Your task to perform on an android device: open sync settings in chrome Image 0: 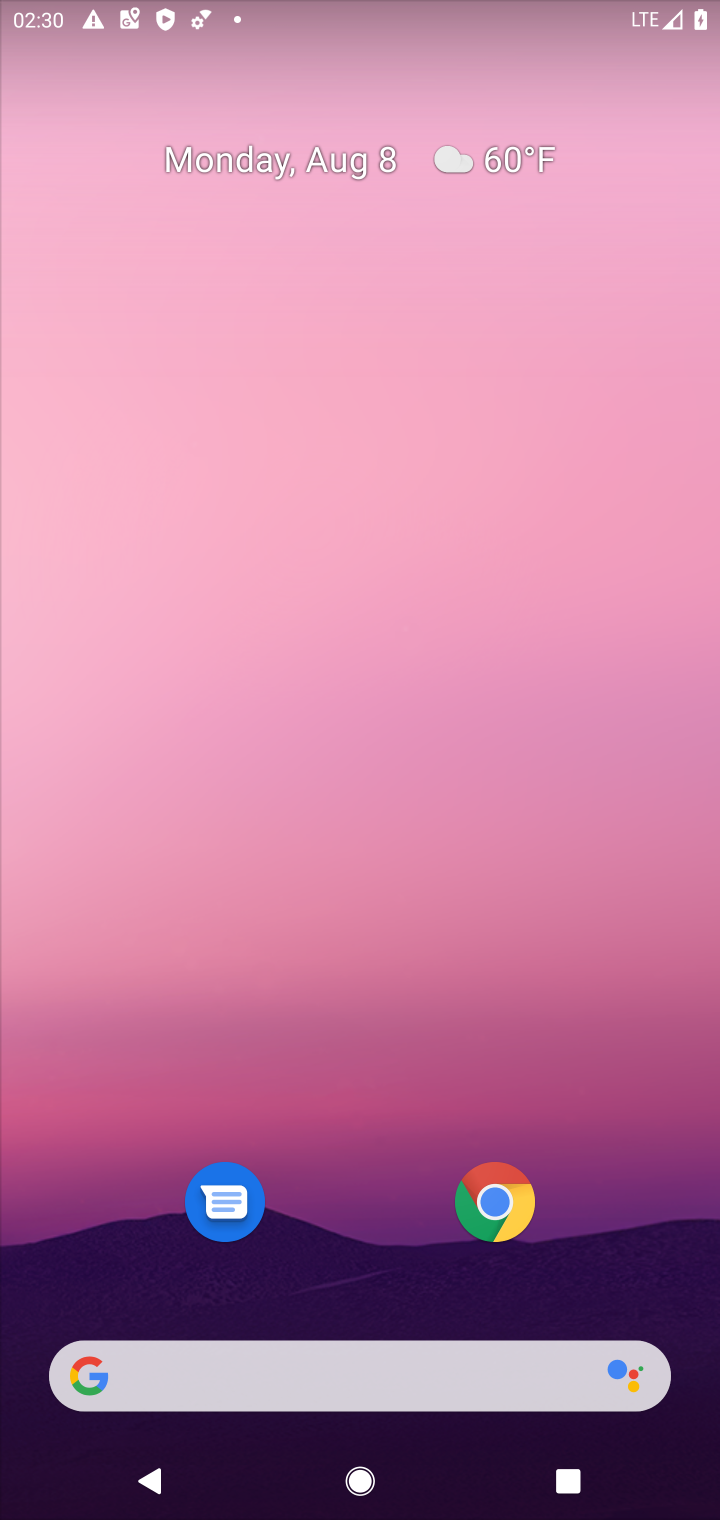
Step 0: click (488, 1200)
Your task to perform on an android device: open sync settings in chrome Image 1: 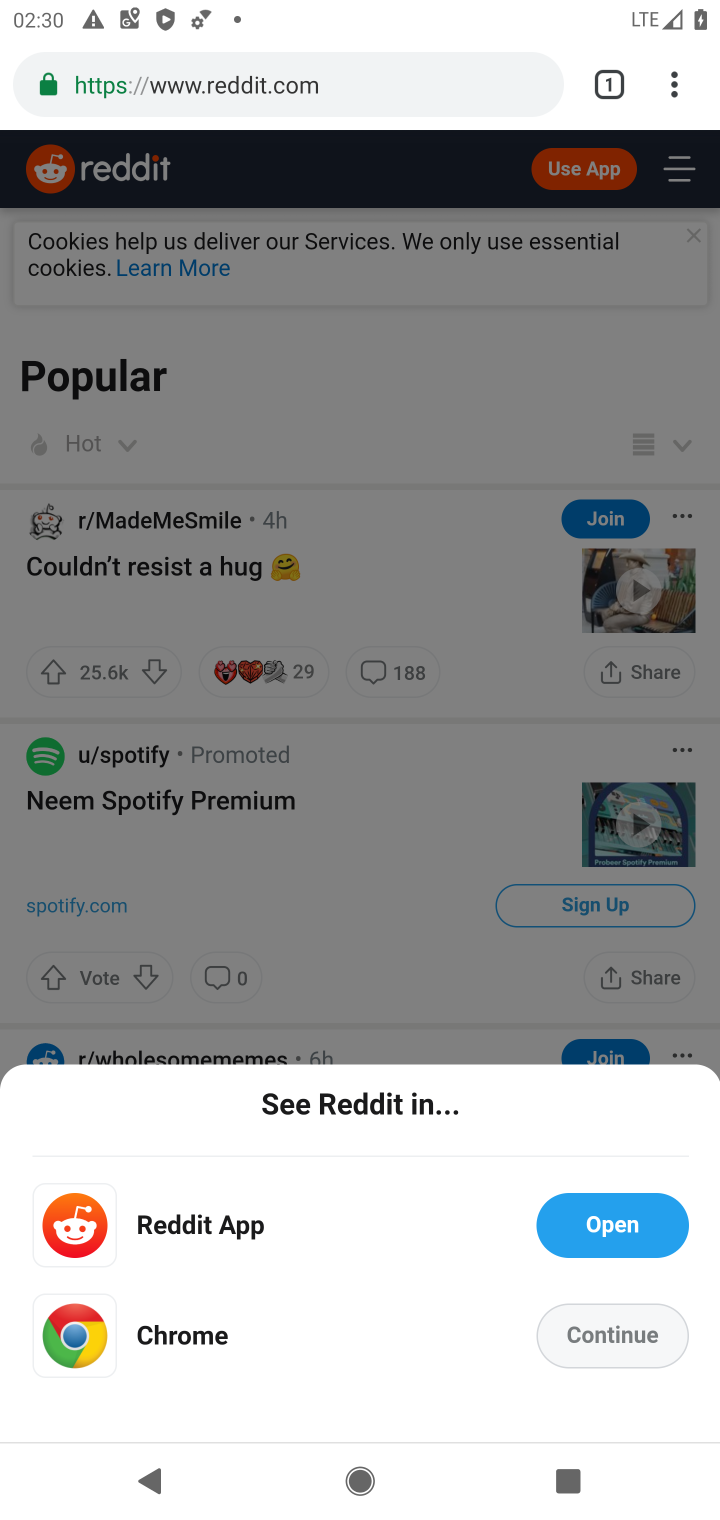
Step 1: click (671, 82)
Your task to perform on an android device: open sync settings in chrome Image 2: 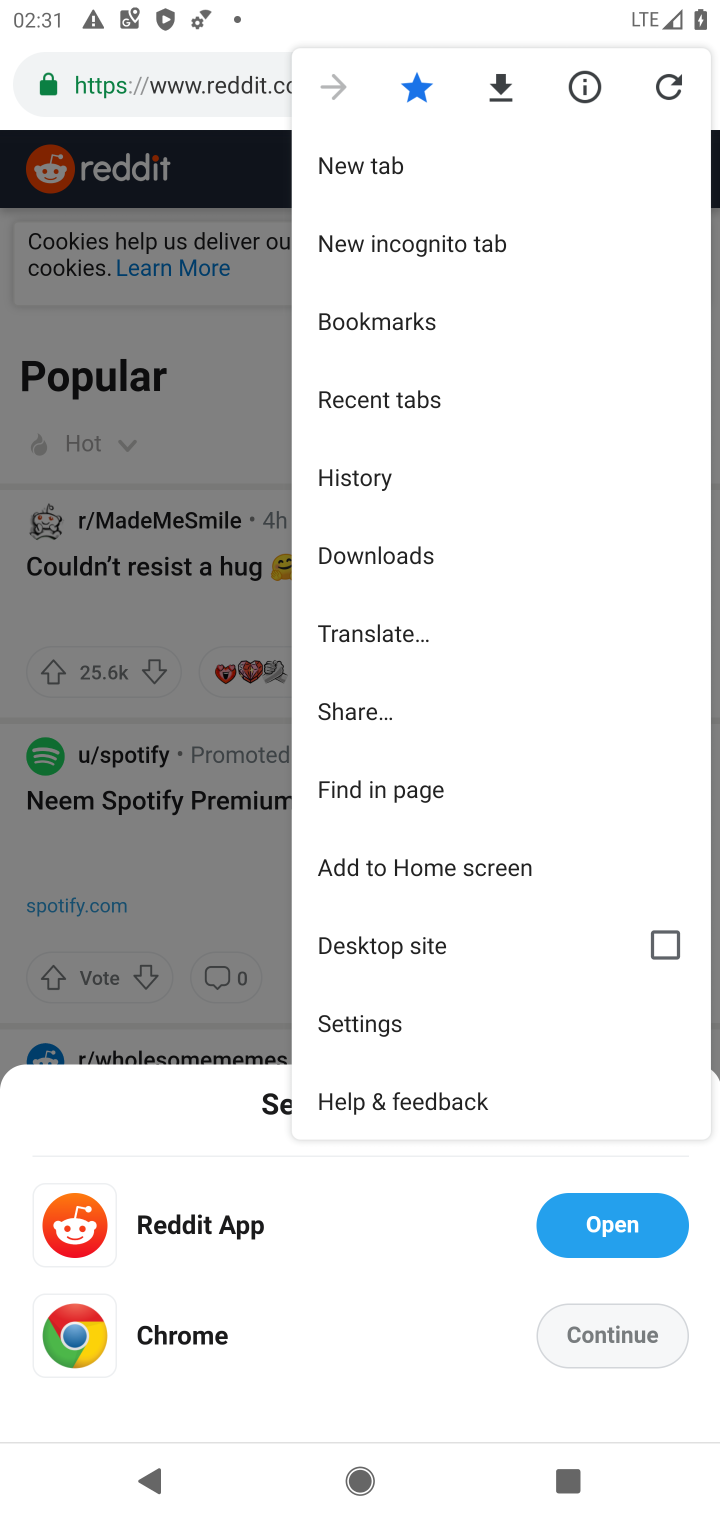
Step 2: click (338, 1026)
Your task to perform on an android device: open sync settings in chrome Image 3: 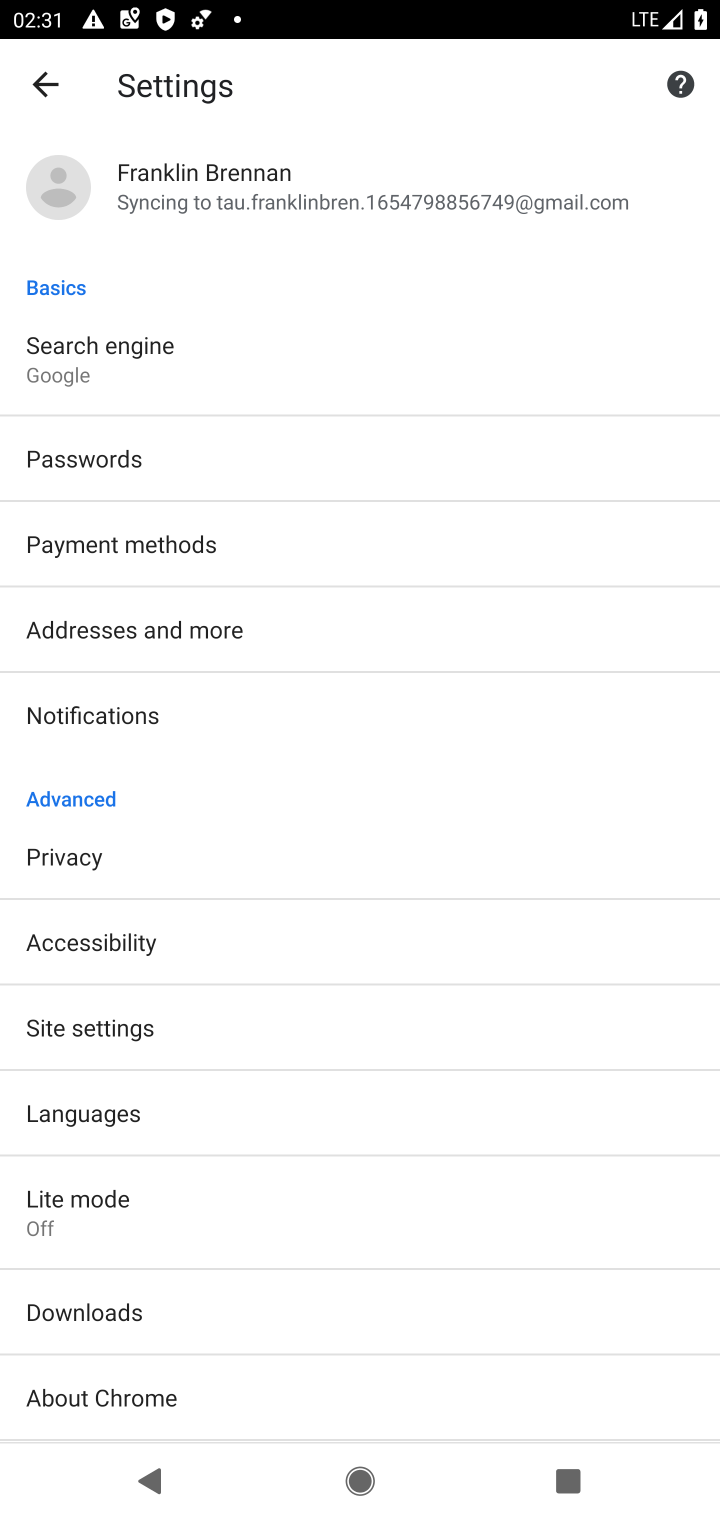
Step 3: click (295, 187)
Your task to perform on an android device: open sync settings in chrome Image 4: 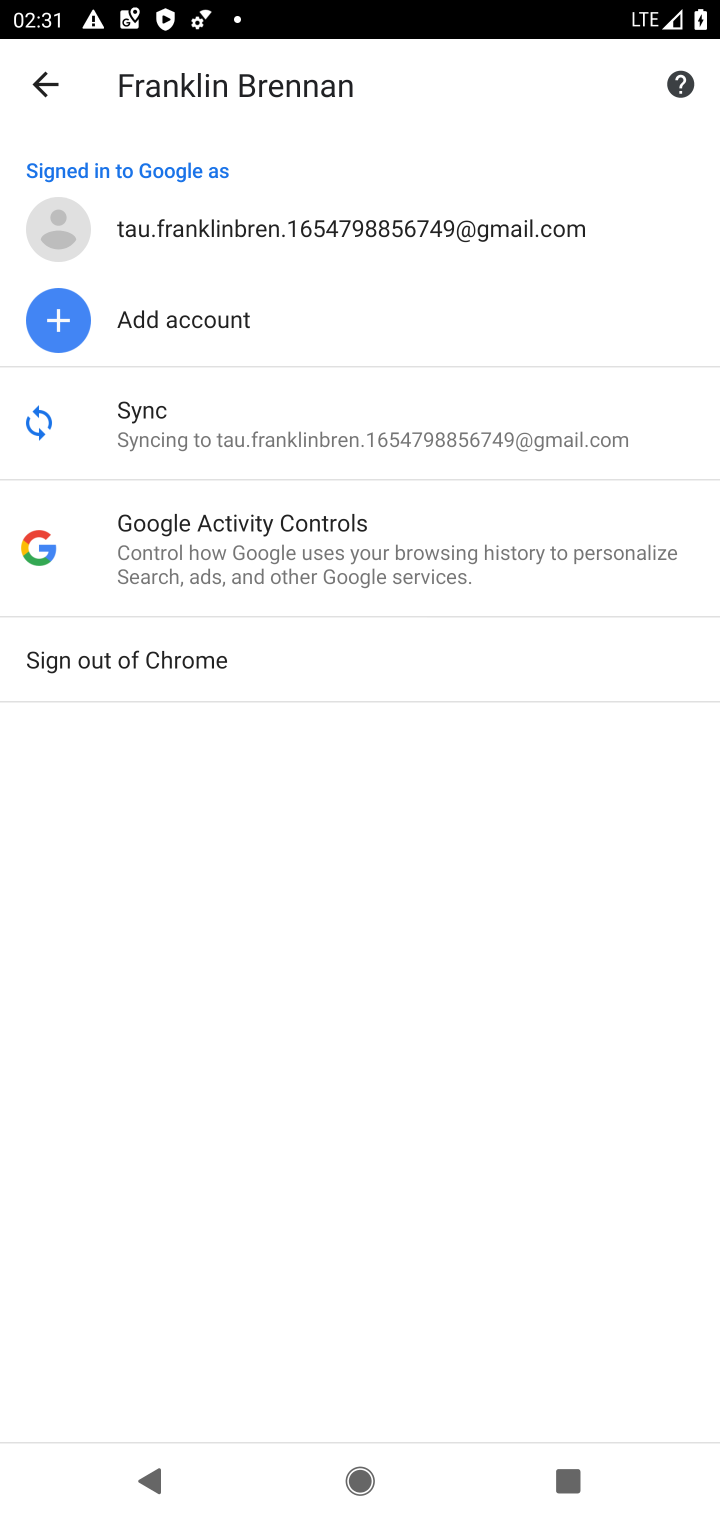
Step 4: click (180, 414)
Your task to perform on an android device: open sync settings in chrome Image 5: 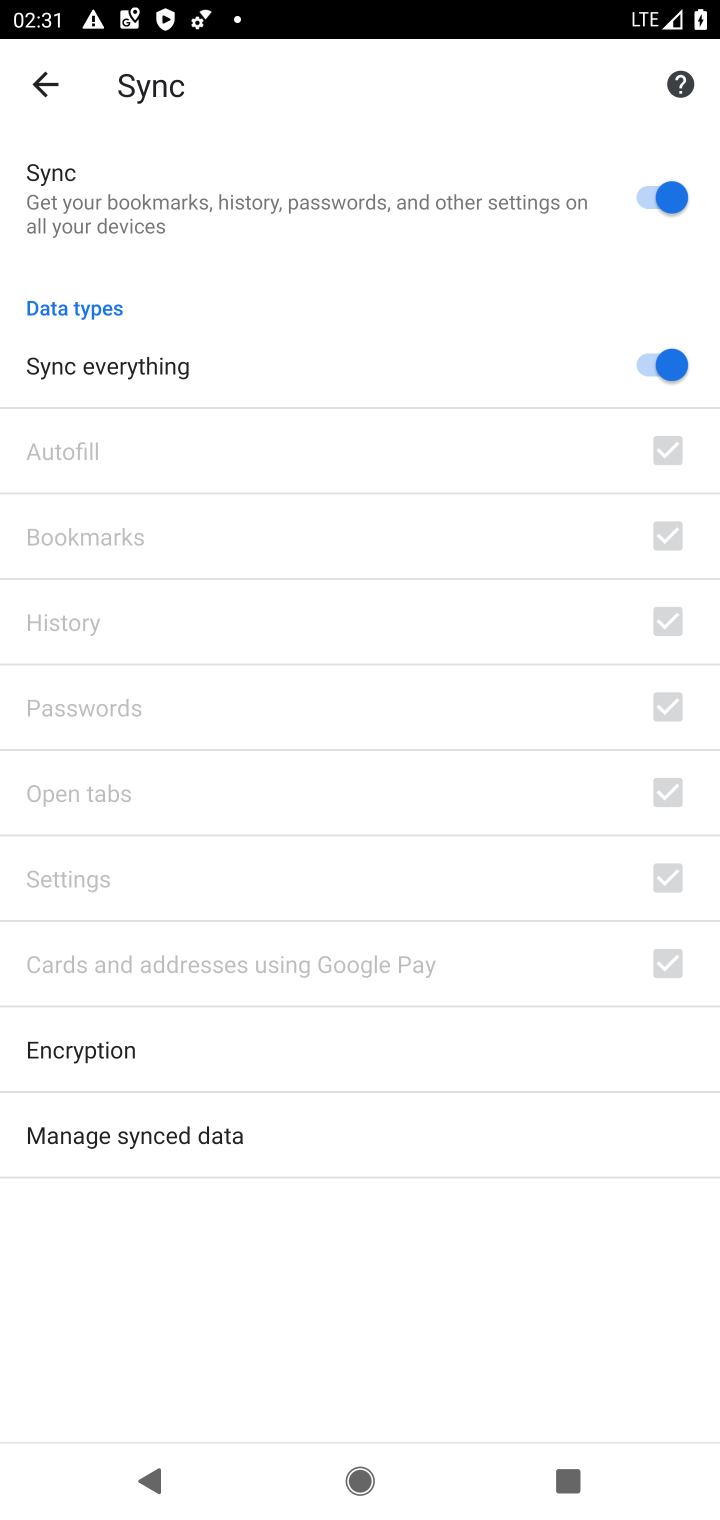
Step 5: task complete